Your task to perform on an android device: Go to privacy settings Image 0: 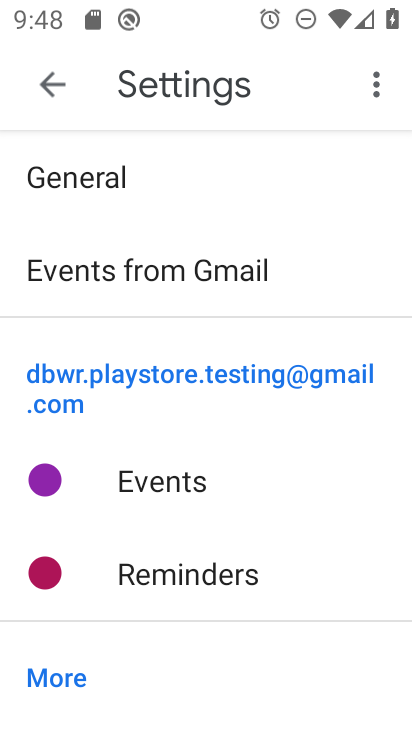
Step 0: press home button
Your task to perform on an android device: Go to privacy settings Image 1: 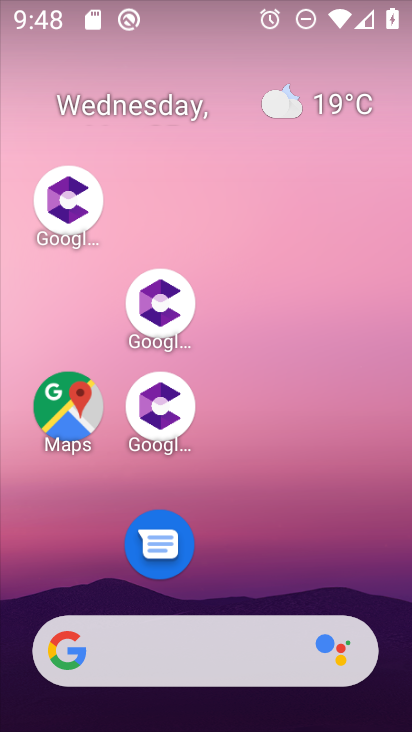
Step 1: drag from (278, 547) to (167, 71)
Your task to perform on an android device: Go to privacy settings Image 2: 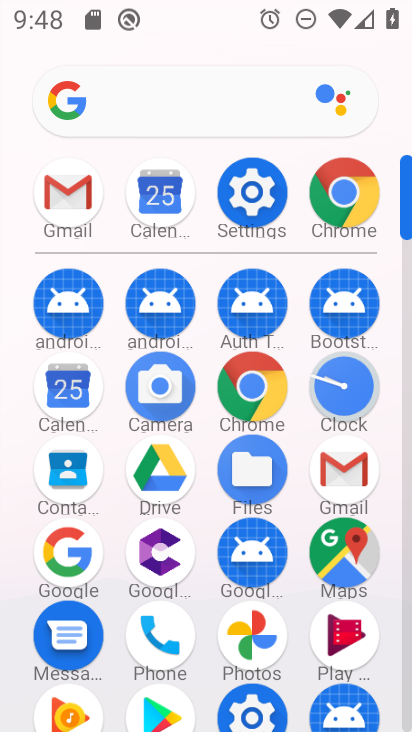
Step 2: click (251, 190)
Your task to perform on an android device: Go to privacy settings Image 3: 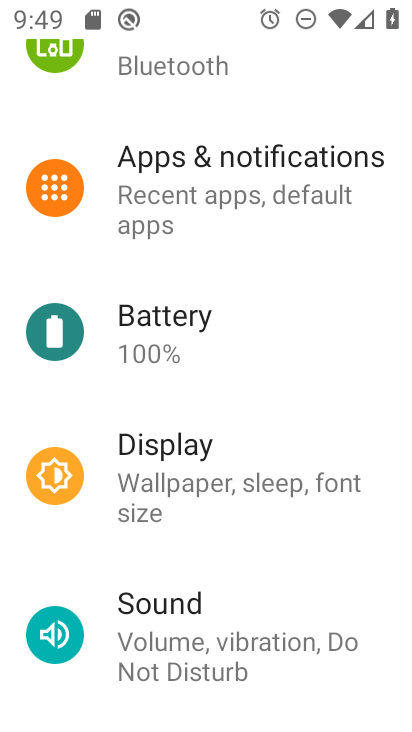
Step 3: drag from (251, 379) to (234, 61)
Your task to perform on an android device: Go to privacy settings Image 4: 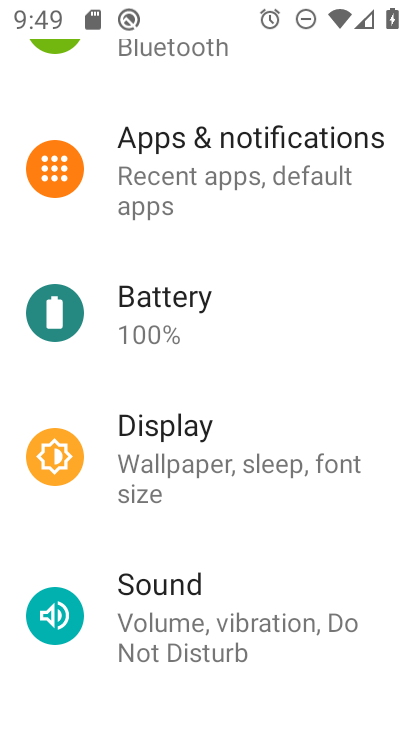
Step 4: drag from (238, 493) to (226, 218)
Your task to perform on an android device: Go to privacy settings Image 5: 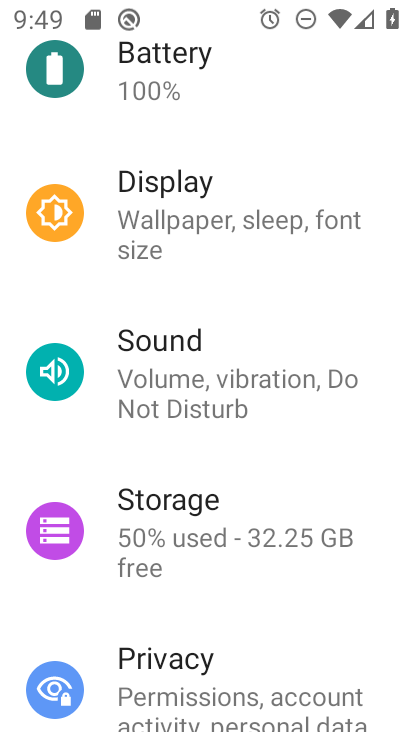
Step 5: click (156, 657)
Your task to perform on an android device: Go to privacy settings Image 6: 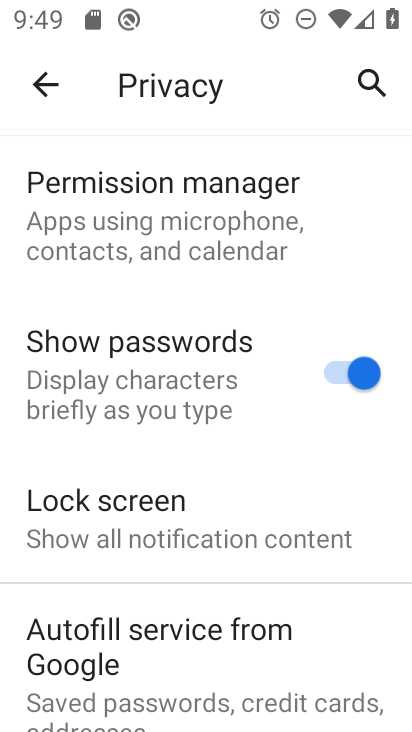
Step 6: task complete